Your task to perform on an android device: Open eBay Image 0: 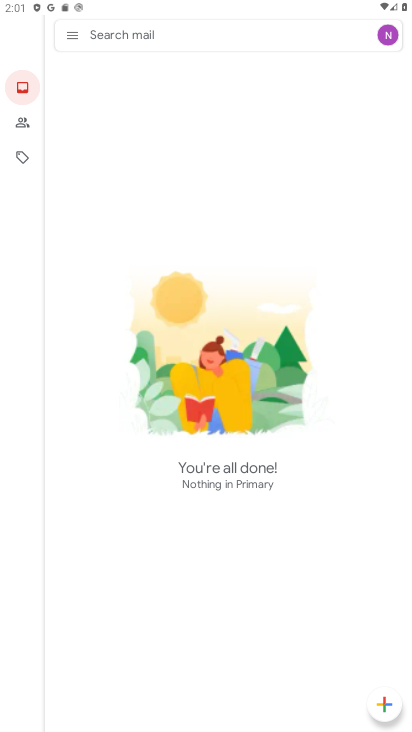
Step 0: press home button
Your task to perform on an android device: Open eBay Image 1: 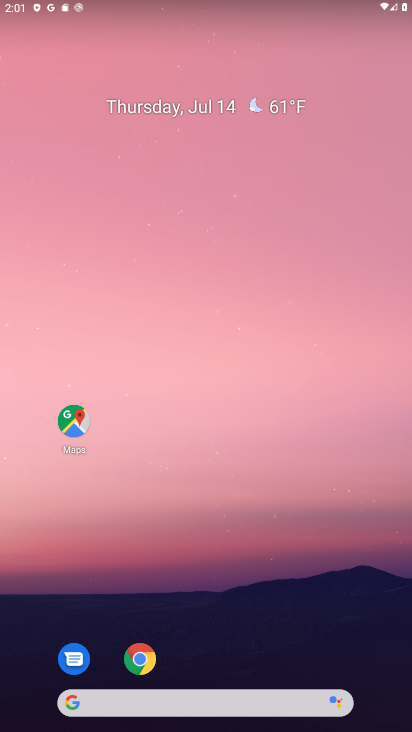
Step 1: drag from (194, 695) to (107, 61)
Your task to perform on an android device: Open eBay Image 2: 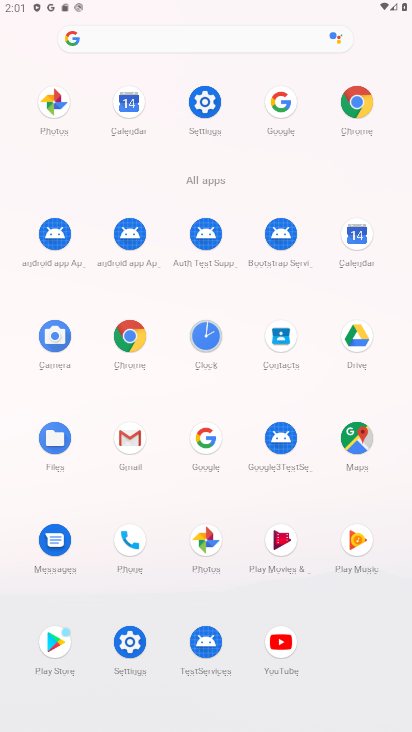
Step 2: click (124, 354)
Your task to perform on an android device: Open eBay Image 3: 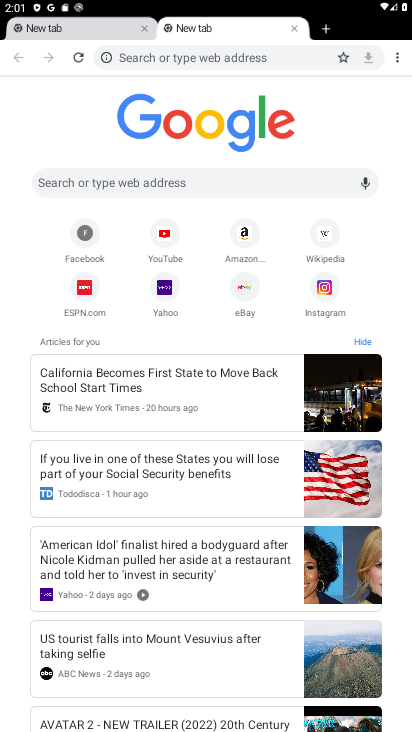
Step 3: click (267, 304)
Your task to perform on an android device: Open eBay Image 4: 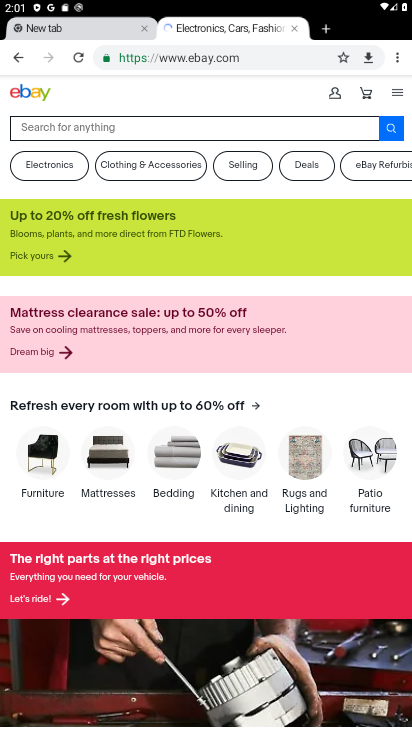
Step 4: task complete